Your task to perform on an android device: Search for Mexican restaurants on Maps Image 0: 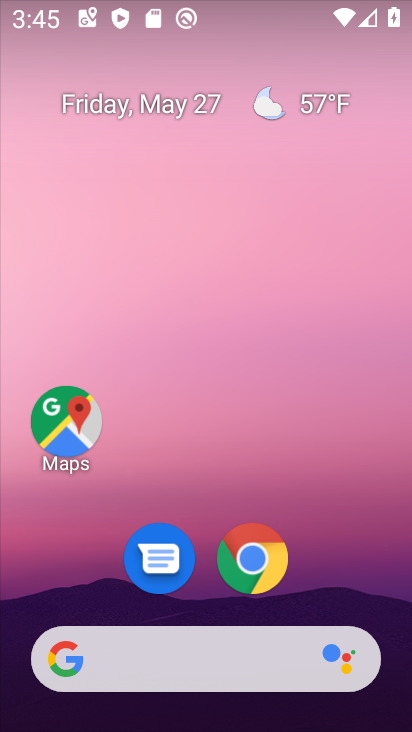
Step 0: click (60, 429)
Your task to perform on an android device: Search for Mexican restaurants on Maps Image 1: 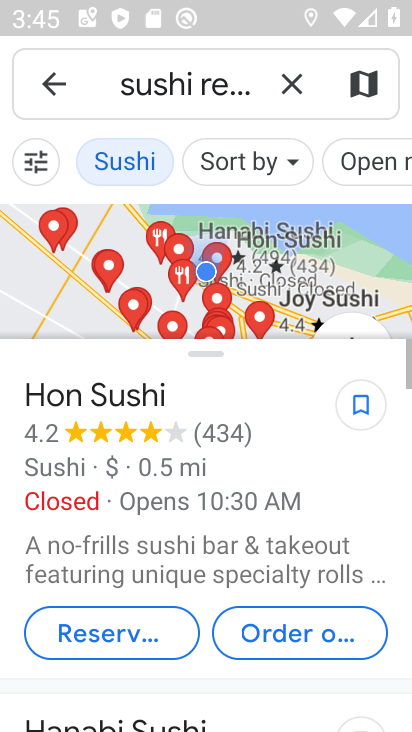
Step 1: click (324, 87)
Your task to perform on an android device: Search for Mexican restaurants on Maps Image 2: 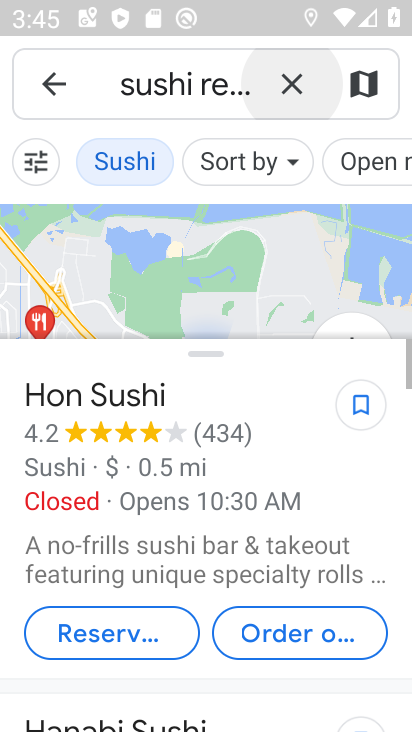
Step 2: click (302, 87)
Your task to perform on an android device: Search for Mexican restaurants on Maps Image 3: 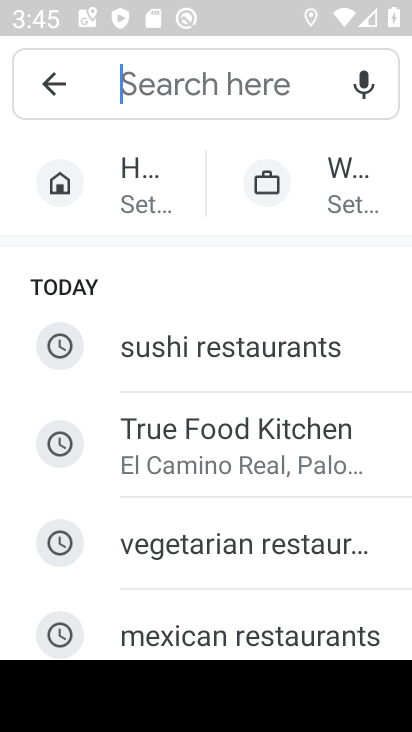
Step 3: click (213, 603)
Your task to perform on an android device: Search for Mexican restaurants on Maps Image 4: 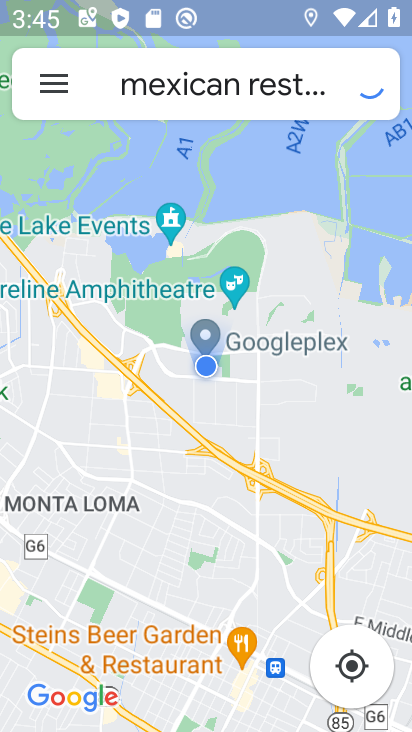
Step 4: task complete